Your task to perform on an android device: turn off priority inbox in the gmail app Image 0: 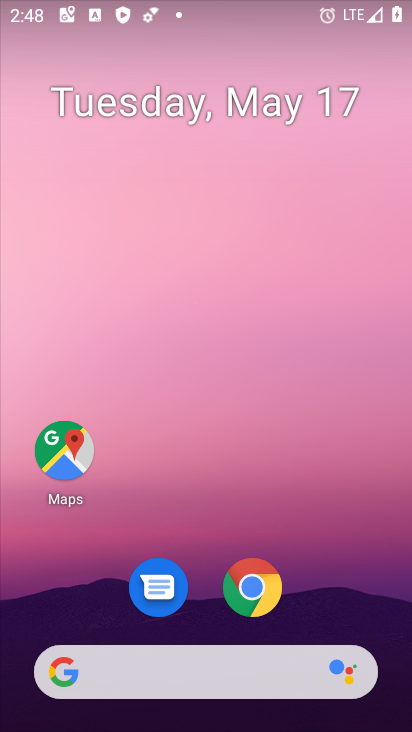
Step 0: drag from (214, 615) to (246, 306)
Your task to perform on an android device: turn off priority inbox in the gmail app Image 1: 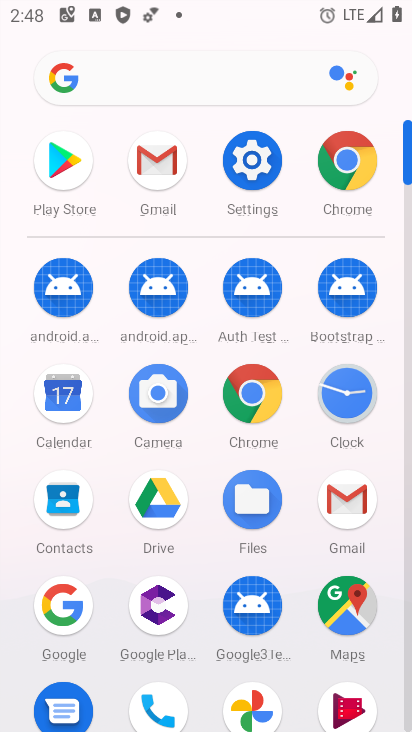
Step 1: click (351, 510)
Your task to perform on an android device: turn off priority inbox in the gmail app Image 2: 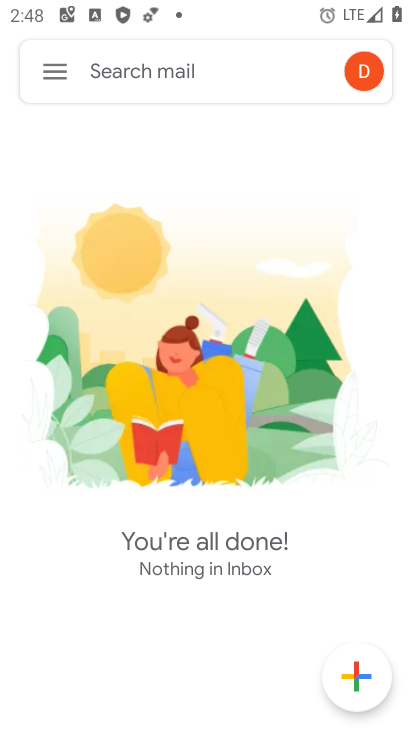
Step 2: click (52, 66)
Your task to perform on an android device: turn off priority inbox in the gmail app Image 3: 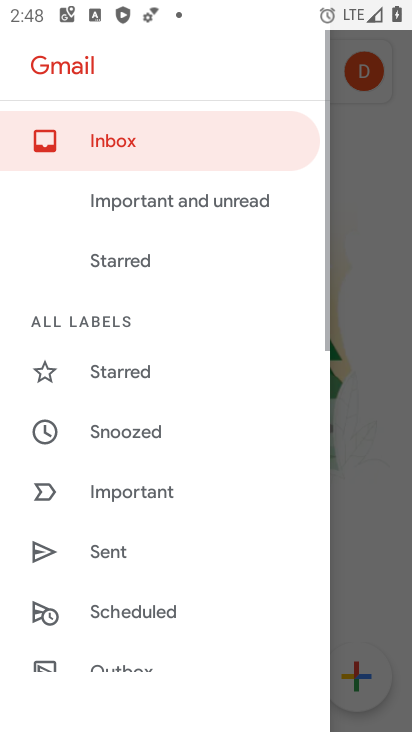
Step 3: drag from (180, 601) to (241, 36)
Your task to perform on an android device: turn off priority inbox in the gmail app Image 4: 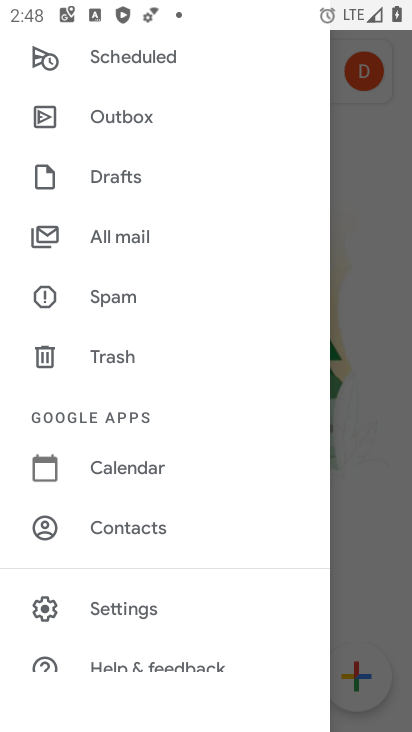
Step 4: click (131, 604)
Your task to perform on an android device: turn off priority inbox in the gmail app Image 5: 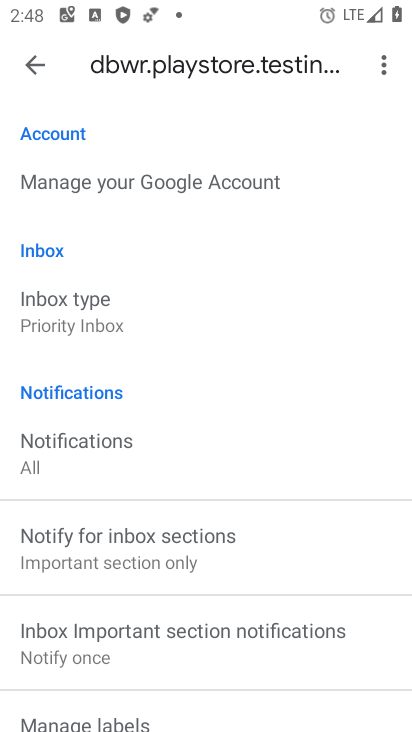
Step 5: drag from (127, 636) to (212, 216)
Your task to perform on an android device: turn off priority inbox in the gmail app Image 6: 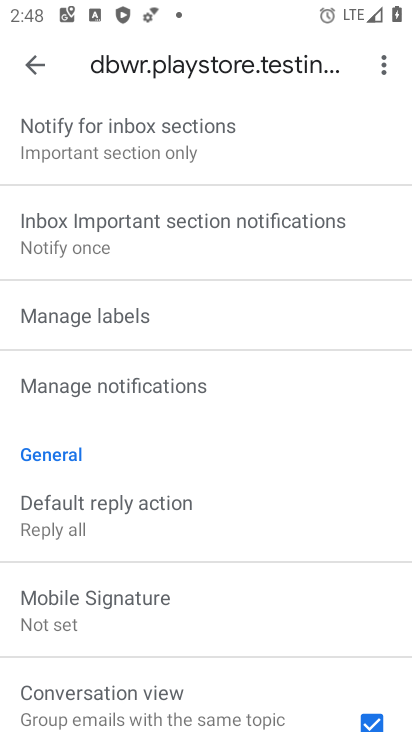
Step 6: drag from (148, 575) to (180, 396)
Your task to perform on an android device: turn off priority inbox in the gmail app Image 7: 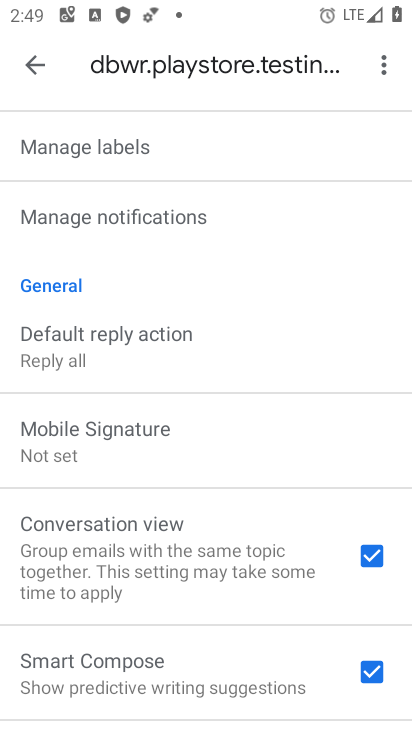
Step 7: drag from (82, 641) to (229, 199)
Your task to perform on an android device: turn off priority inbox in the gmail app Image 8: 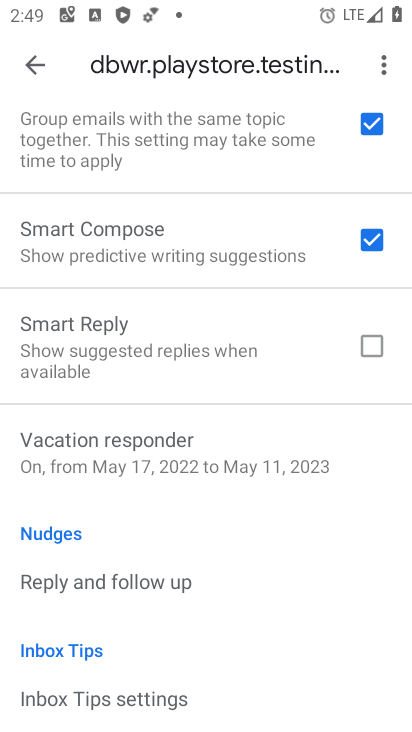
Step 8: drag from (186, 241) to (252, 698)
Your task to perform on an android device: turn off priority inbox in the gmail app Image 9: 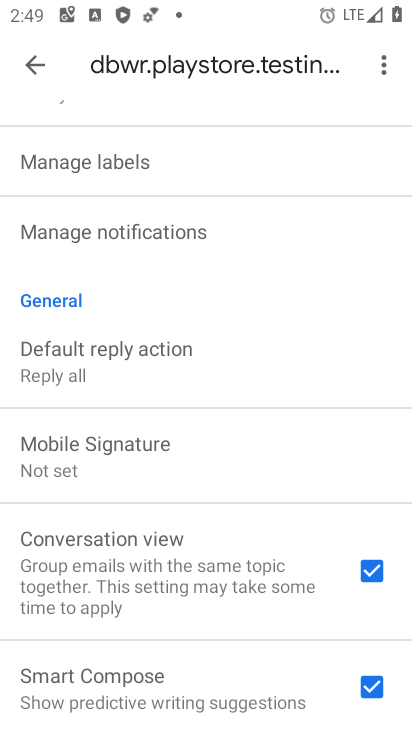
Step 9: drag from (172, 214) to (265, 690)
Your task to perform on an android device: turn off priority inbox in the gmail app Image 10: 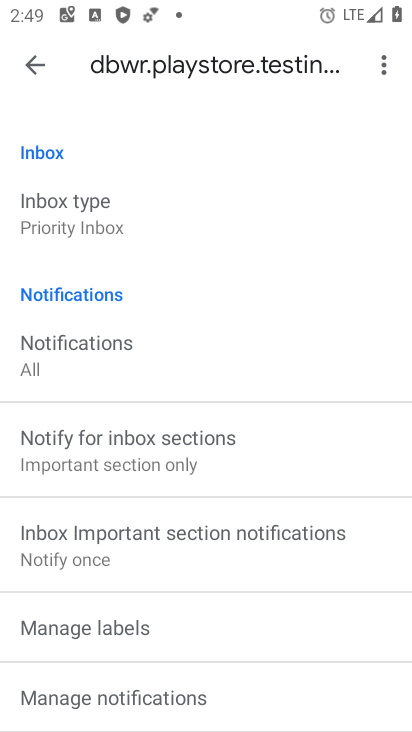
Step 10: click (135, 225)
Your task to perform on an android device: turn off priority inbox in the gmail app Image 11: 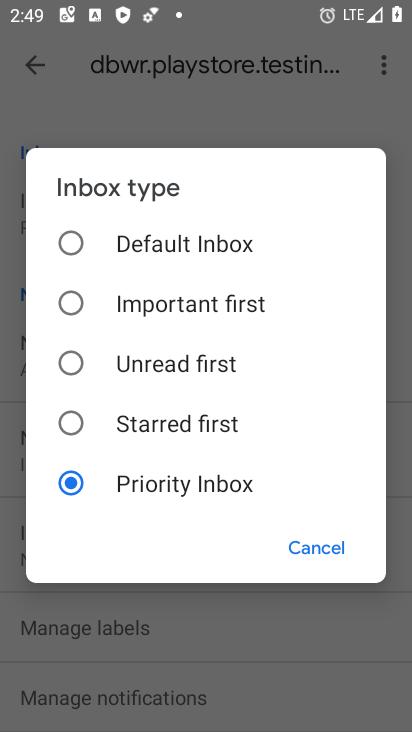
Step 11: click (139, 237)
Your task to perform on an android device: turn off priority inbox in the gmail app Image 12: 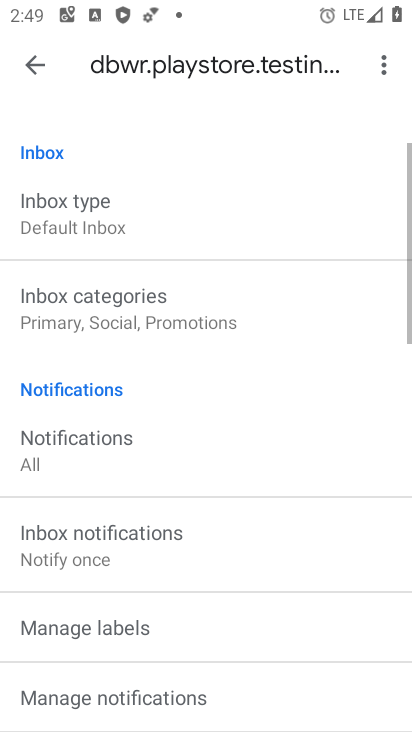
Step 12: task complete